Your task to perform on an android device: visit the assistant section in the google photos Image 0: 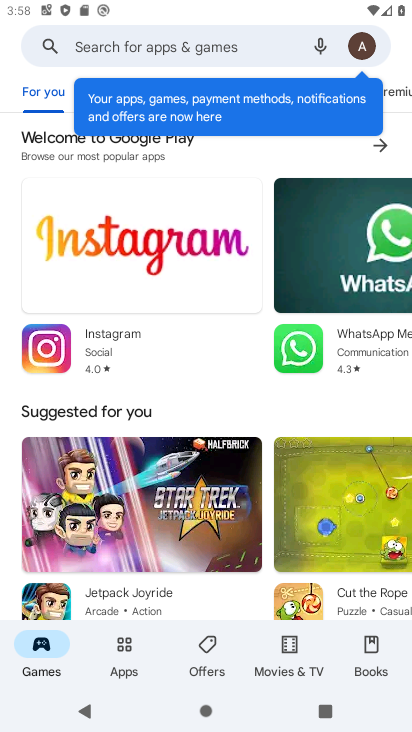
Step 0: press home button
Your task to perform on an android device: visit the assistant section in the google photos Image 1: 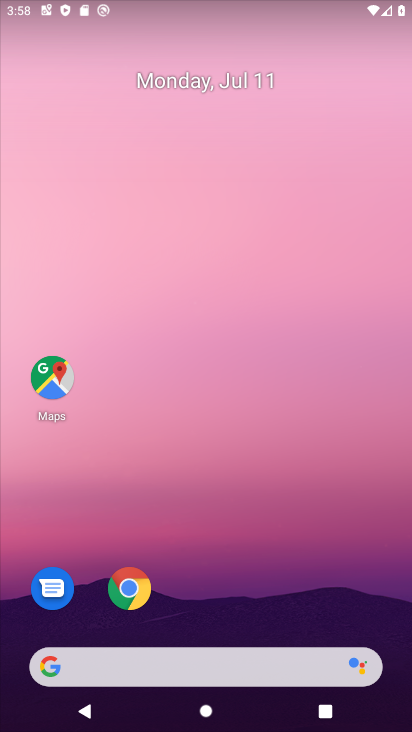
Step 1: drag from (372, 600) to (358, 271)
Your task to perform on an android device: visit the assistant section in the google photos Image 2: 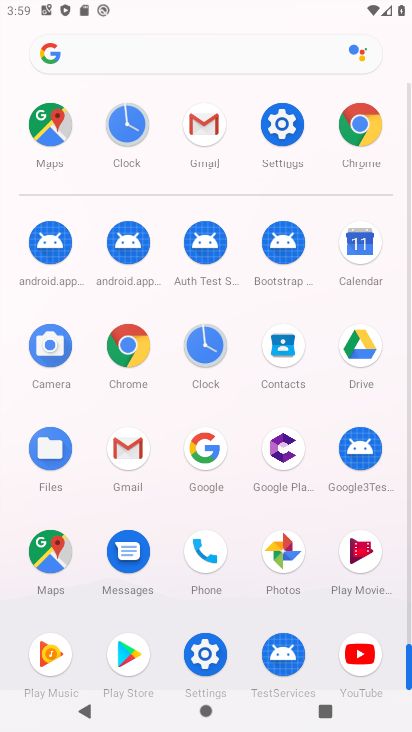
Step 2: click (271, 567)
Your task to perform on an android device: visit the assistant section in the google photos Image 3: 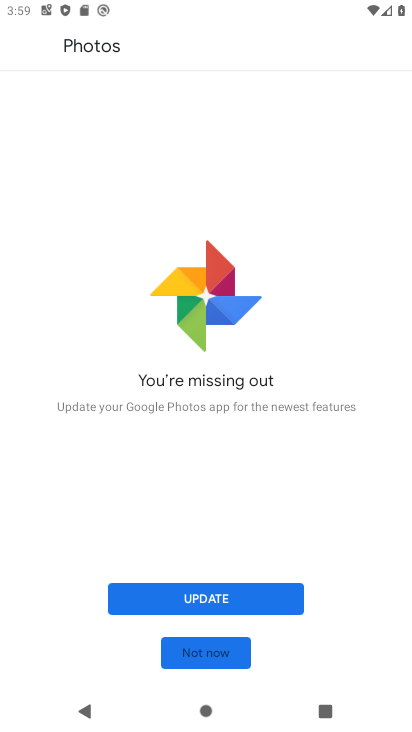
Step 3: click (236, 594)
Your task to perform on an android device: visit the assistant section in the google photos Image 4: 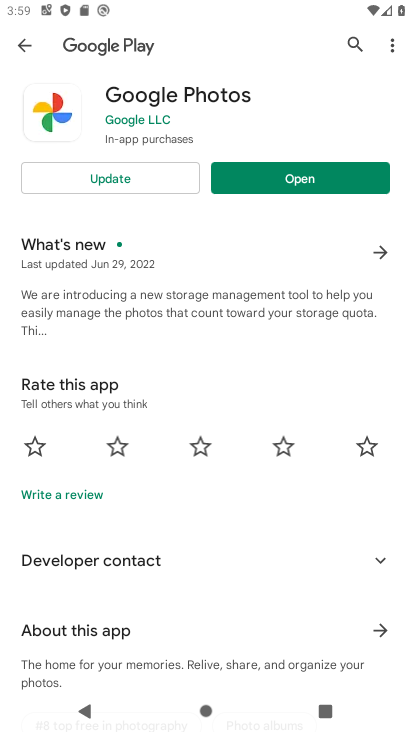
Step 4: click (131, 182)
Your task to perform on an android device: visit the assistant section in the google photos Image 5: 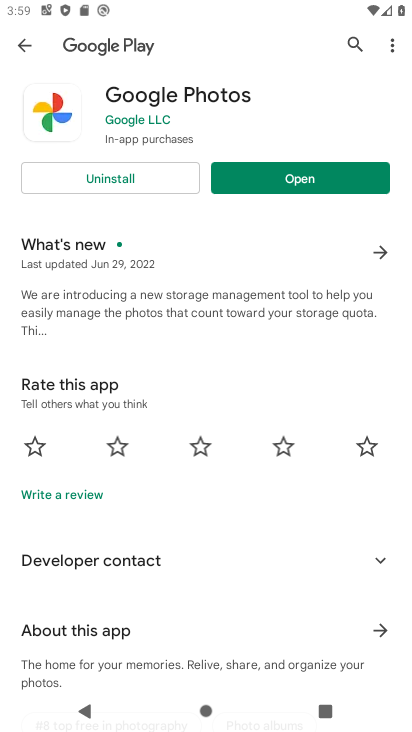
Step 5: click (284, 173)
Your task to perform on an android device: visit the assistant section in the google photos Image 6: 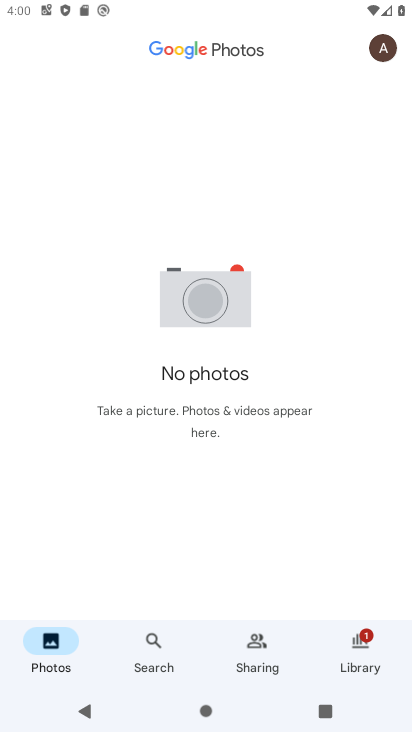
Step 6: click (377, 49)
Your task to perform on an android device: visit the assistant section in the google photos Image 7: 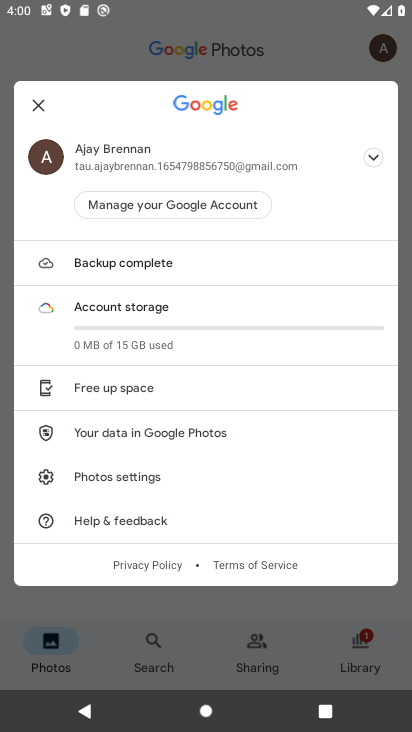
Step 7: click (40, 100)
Your task to perform on an android device: visit the assistant section in the google photos Image 8: 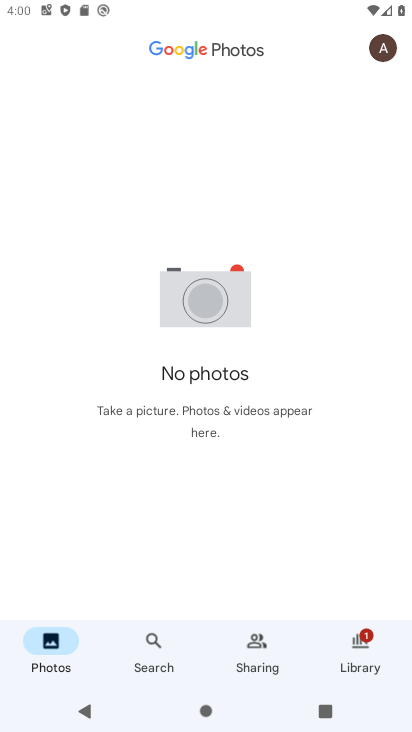
Step 8: click (370, 652)
Your task to perform on an android device: visit the assistant section in the google photos Image 9: 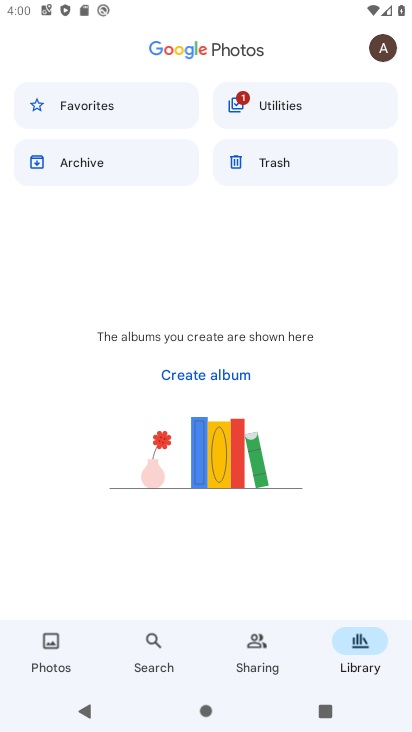
Step 9: task complete